Your task to perform on an android device: turn on notifications settings in the gmail app Image 0: 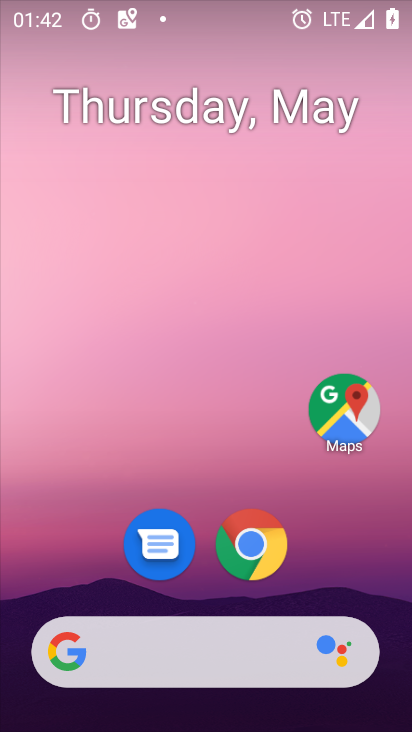
Step 0: drag from (377, 574) to (362, 208)
Your task to perform on an android device: turn on notifications settings in the gmail app Image 1: 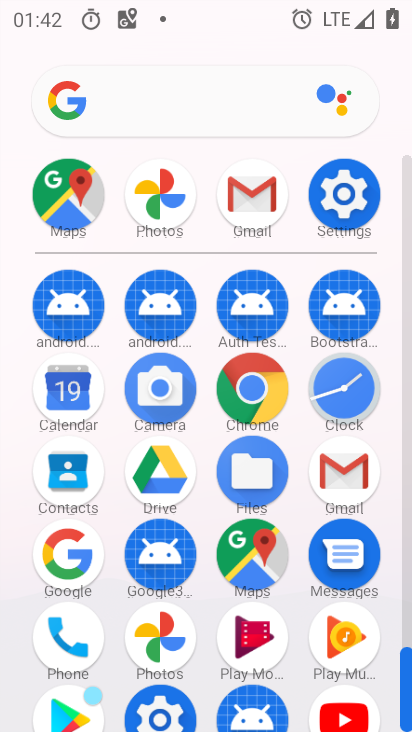
Step 1: click (368, 475)
Your task to perform on an android device: turn on notifications settings in the gmail app Image 2: 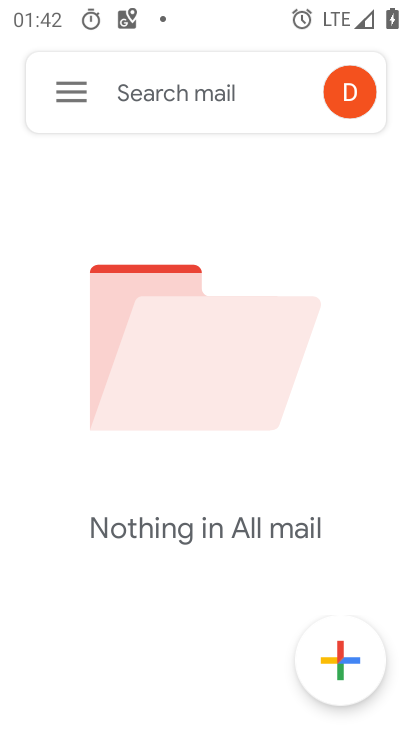
Step 2: click (79, 97)
Your task to perform on an android device: turn on notifications settings in the gmail app Image 3: 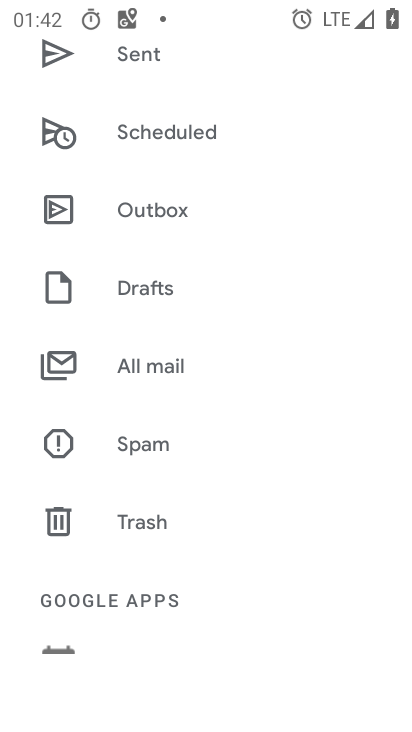
Step 3: drag from (311, 275) to (317, 388)
Your task to perform on an android device: turn on notifications settings in the gmail app Image 4: 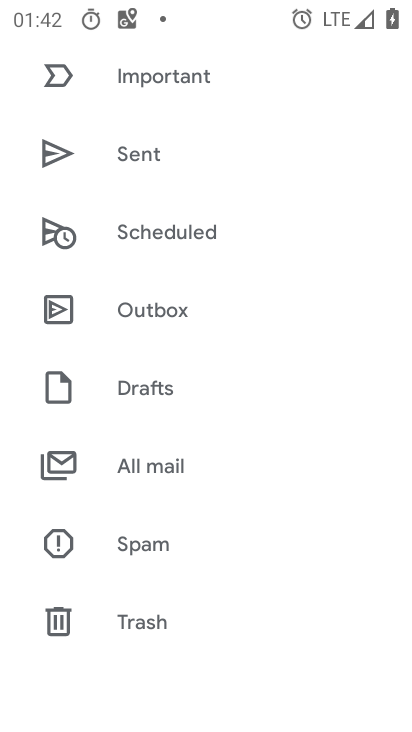
Step 4: drag from (322, 221) to (336, 366)
Your task to perform on an android device: turn on notifications settings in the gmail app Image 5: 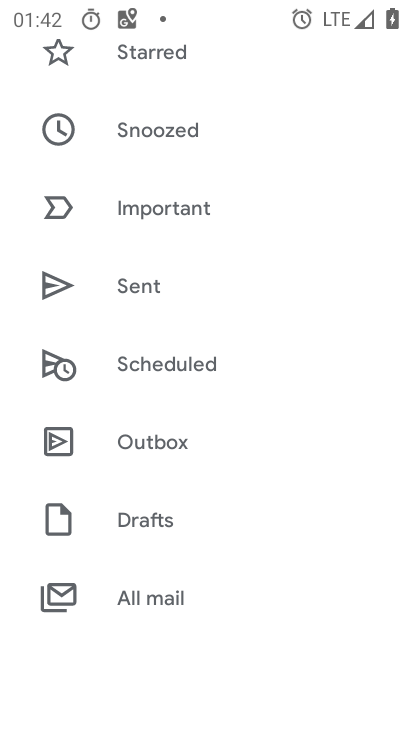
Step 5: drag from (349, 196) to (346, 355)
Your task to perform on an android device: turn on notifications settings in the gmail app Image 6: 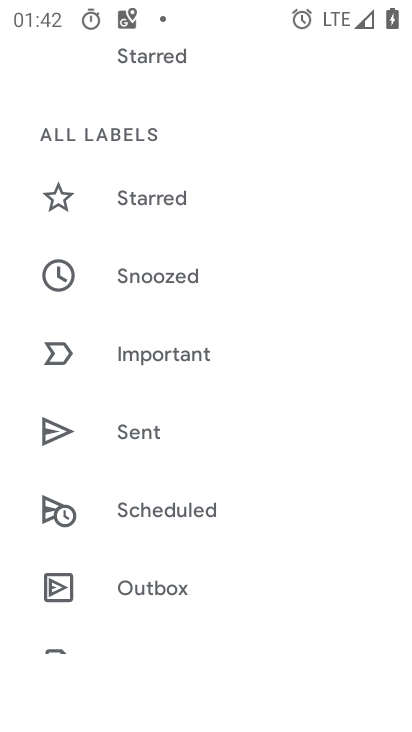
Step 6: drag from (310, 166) to (315, 343)
Your task to perform on an android device: turn on notifications settings in the gmail app Image 7: 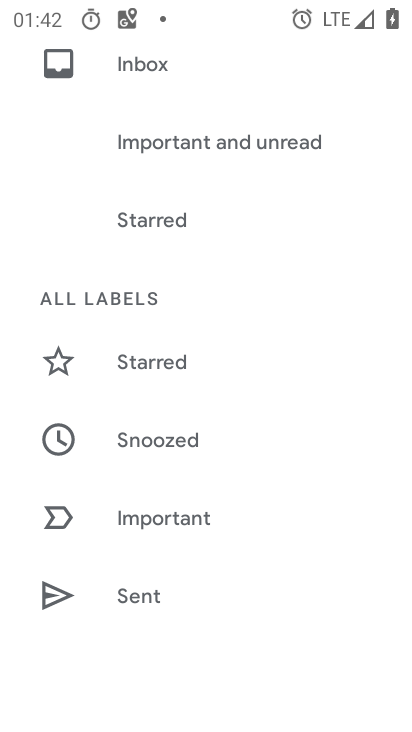
Step 7: drag from (337, 157) to (337, 313)
Your task to perform on an android device: turn on notifications settings in the gmail app Image 8: 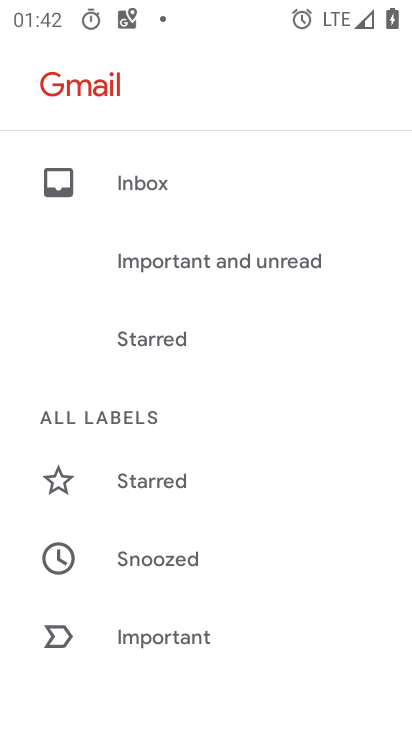
Step 8: drag from (328, 164) to (327, 285)
Your task to perform on an android device: turn on notifications settings in the gmail app Image 9: 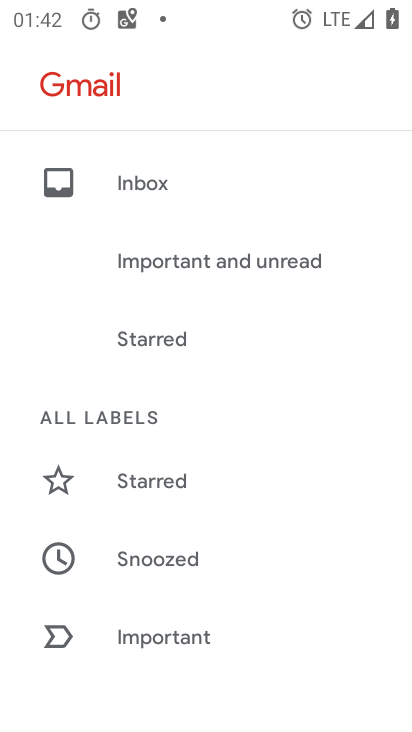
Step 9: drag from (317, 140) to (311, 288)
Your task to perform on an android device: turn on notifications settings in the gmail app Image 10: 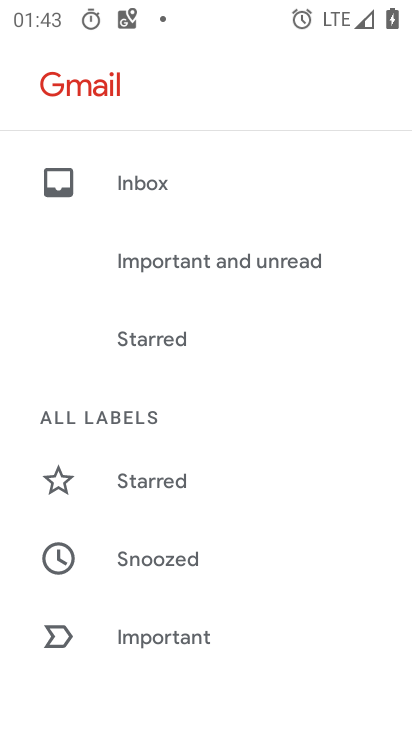
Step 10: drag from (321, 455) to (336, 342)
Your task to perform on an android device: turn on notifications settings in the gmail app Image 11: 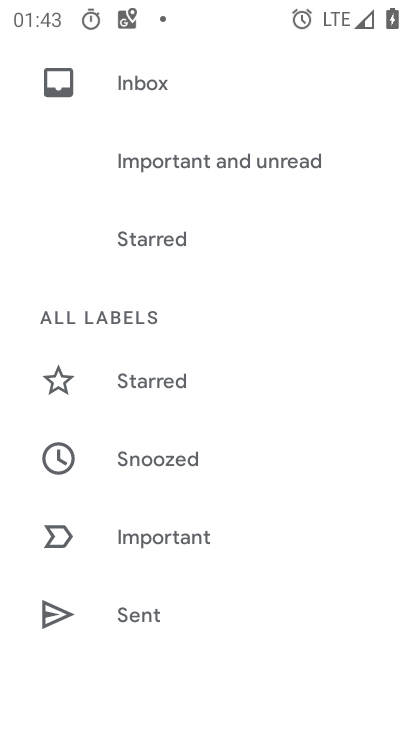
Step 11: drag from (293, 530) to (298, 378)
Your task to perform on an android device: turn on notifications settings in the gmail app Image 12: 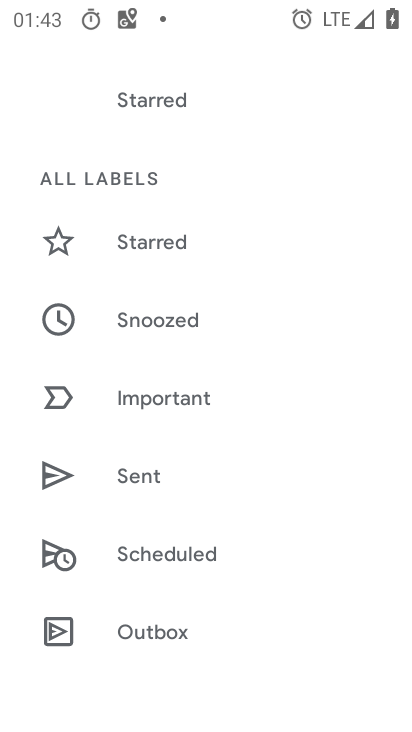
Step 12: drag from (285, 550) to (291, 392)
Your task to perform on an android device: turn on notifications settings in the gmail app Image 13: 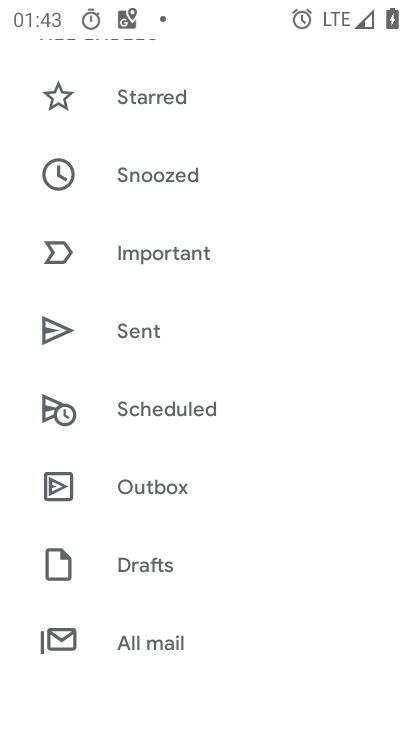
Step 13: drag from (283, 595) to (284, 459)
Your task to perform on an android device: turn on notifications settings in the gmail app Image 14: 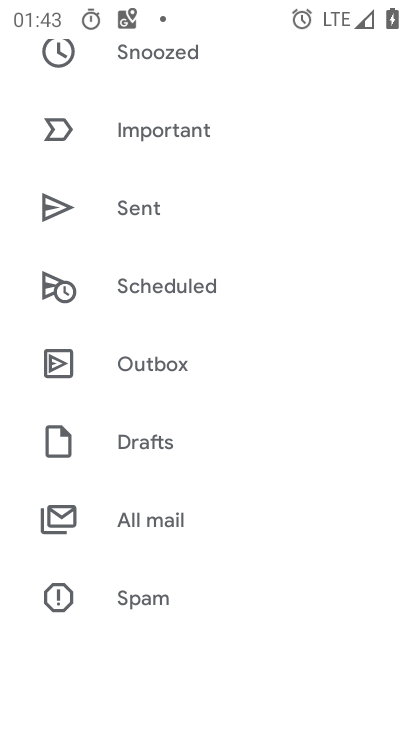
Step 14: drag from (289, 610) to (286, 463)
Your task to perform on an android device: turn on notifications settings in the gmail app Image 15: 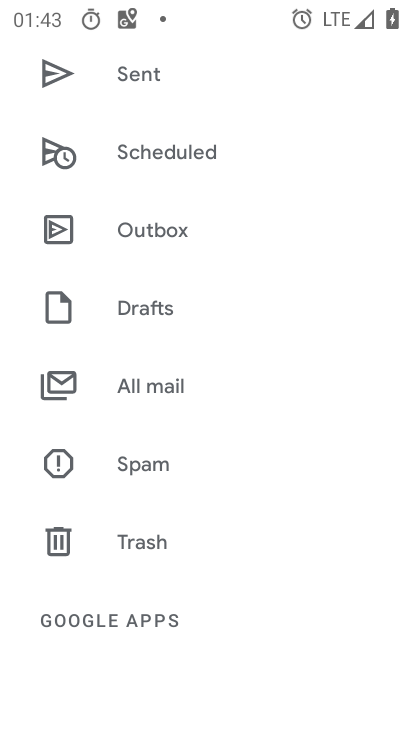
Step 15: drag from (278, 602) to (277, 449)
Your task to perform on an android device: turn on notifications settings in the gmail app Image 16: 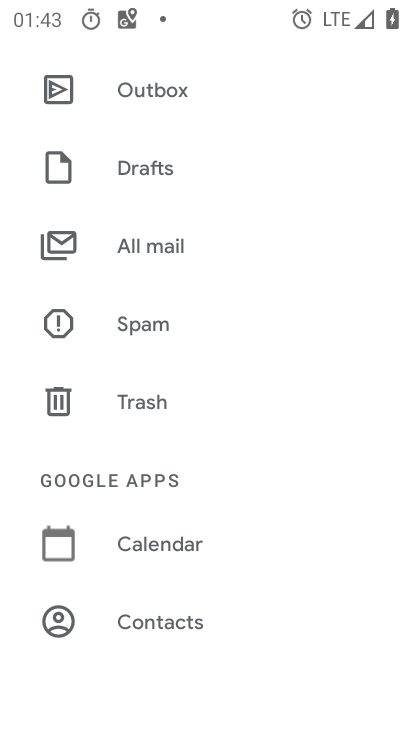
Step 16: drag from (266, 607) to (261, 484)
Your task to perform on an android device: turn on notifications settings in the gmail app Image 17: 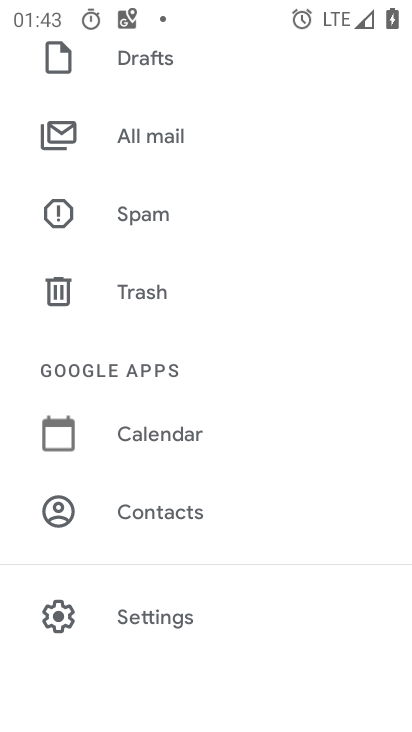
Step 17: click (159, 623)
Your task to perform on an android device: turn on notifications settings in the gmail app Image 18: 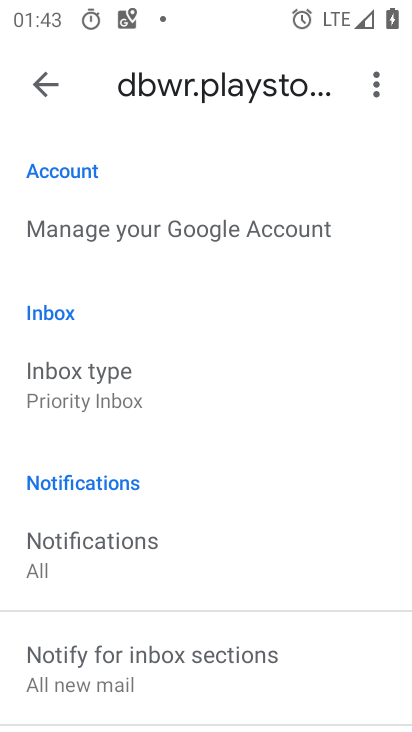
Step 18: drag from (280, 559) to (291, 445)
Your task to perform on an android device: turn on notifications settings in the gmail app Image 19: 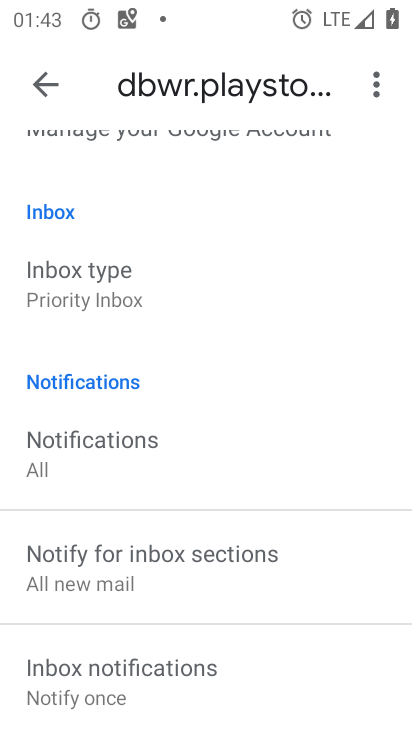
Step 19: drag from (300, 653) to (300, 531)
Your task to perform on an android device: turn on notifications settings in the gmail app Image 20: 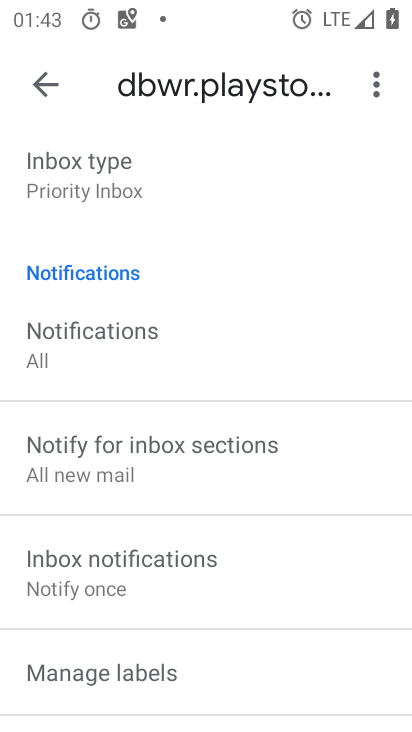
Step 20: drag from (299, 657) to (304, 521)
Your task to perform on an android device: turn on notifications settings in the gmail app Image 21: 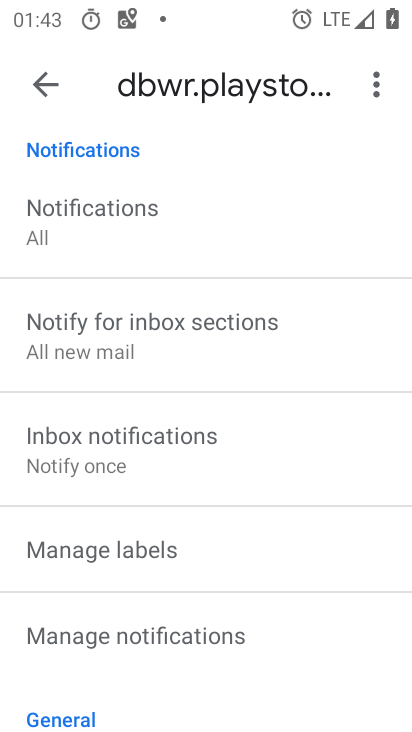
Step 21: drag from (302, 676) to (307, 513)
Your task to perform on an android device: turn on notifications settings in the gmail app Image 22: 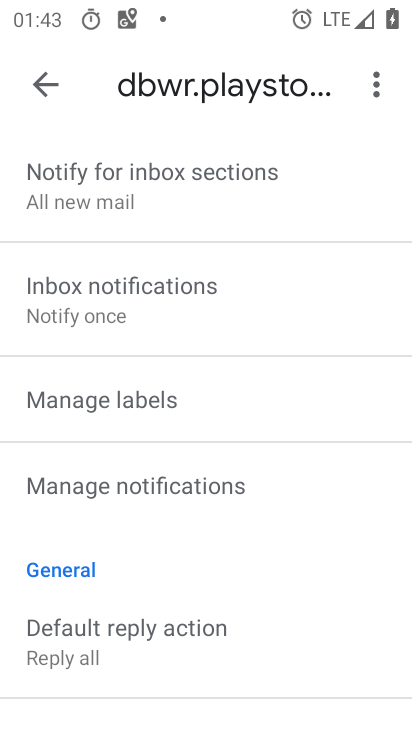
Step 22: click (241, 501)
Your task to perform on an android device: turn on notifications settings in the gmail app Image 23: 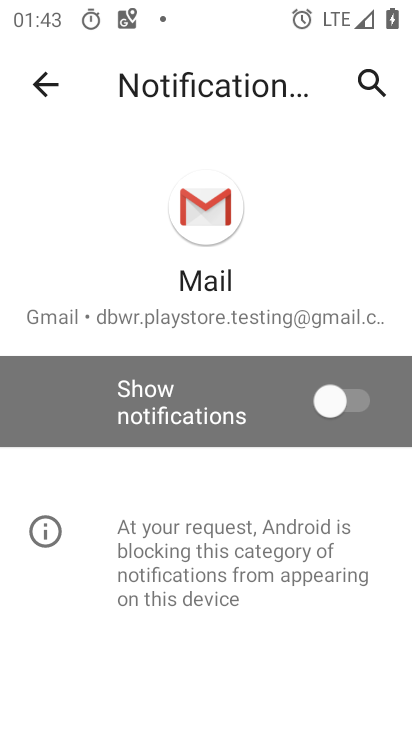
Step 23: click (336, 412)
Your task to perform on an android device: turn on notifications settings in the gmail app Image 24: 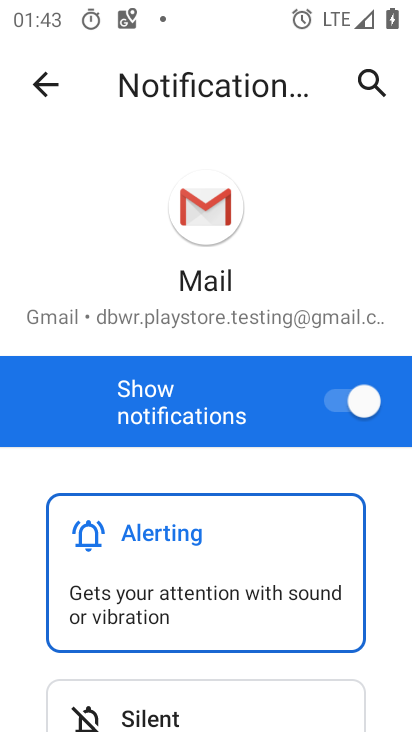
Step 24: task complete